Your task to perform on an android device: turn on javascript in the chrome app Image 0: 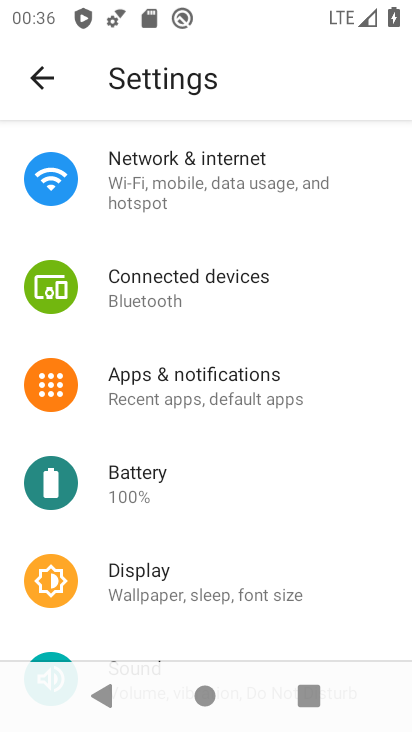
Step 0: press home button
Your task to perform on an android device: turn on javascript in the chrome app Image 1: 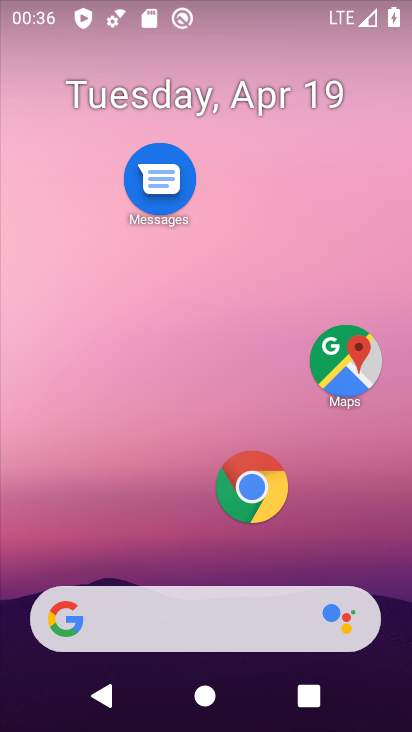
Step 1: click (258, 482)
Your task to perform on an android device: turn on javascript in the chrome app Image 2: 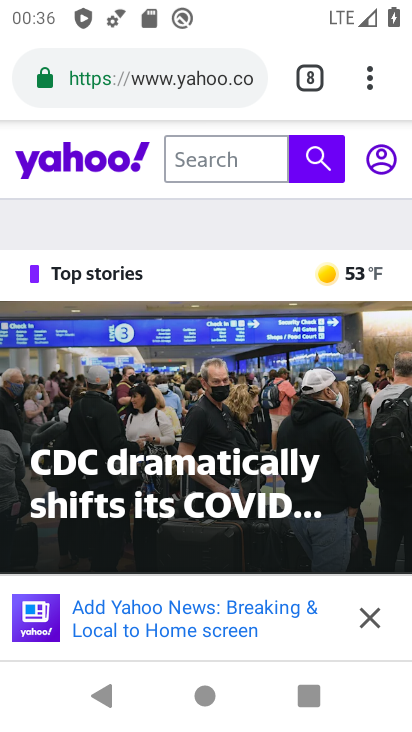
Step 2: click (369, 72)
Your task to perform on an android device: turn on javascript in the chrome app Image 3: 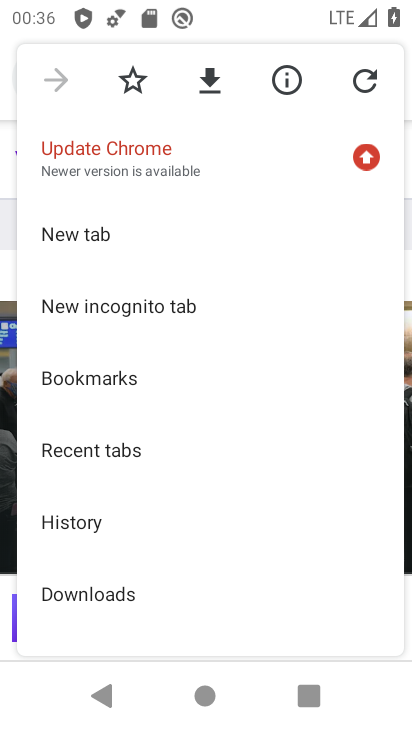
Step 3: drag from (203, 564) to (199, 118)
Your task to perform on an android device: turn on javascript in the chrome app Image 4: 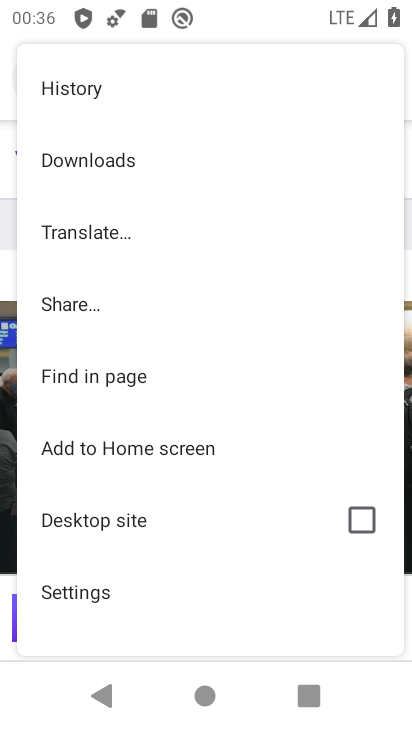
Step 4: click (85, 589)
Your task to perform on an android device: turn on javascript in the chrome app Image 5: 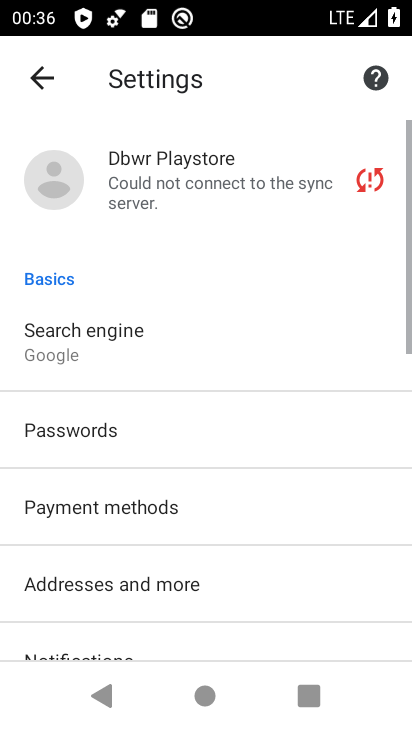
Step 5: drag from (172, 576) to (210, 0)
Your task to perform on an android device: turn on javascript in the chrome app Image 6: 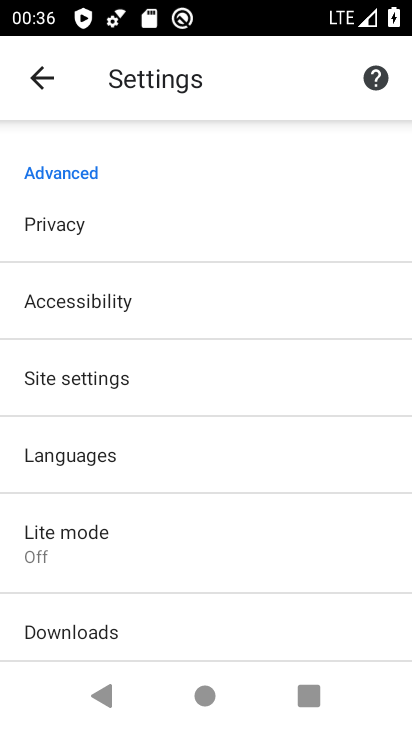
Step 6: click (83, 380)
Your task to perform on an android device: turn on javascript in the chrome app Image 7: 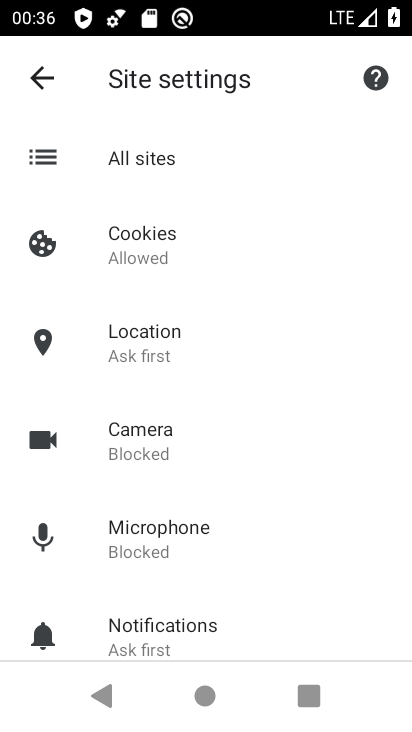
Step 7: drag from (260, 502) to (302, 171)
Your task to perform on an android device: turn on javascript in the chrome app Image 8: 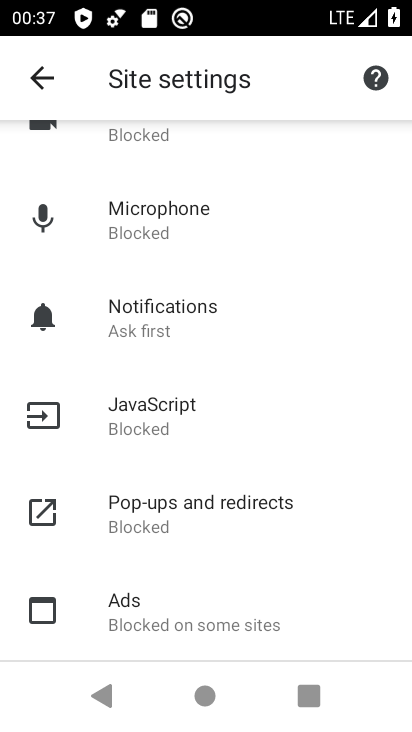
Step 8: click (165, 398)
Your task to perform on an android device: turn on javascript in the chrome app Image 9: 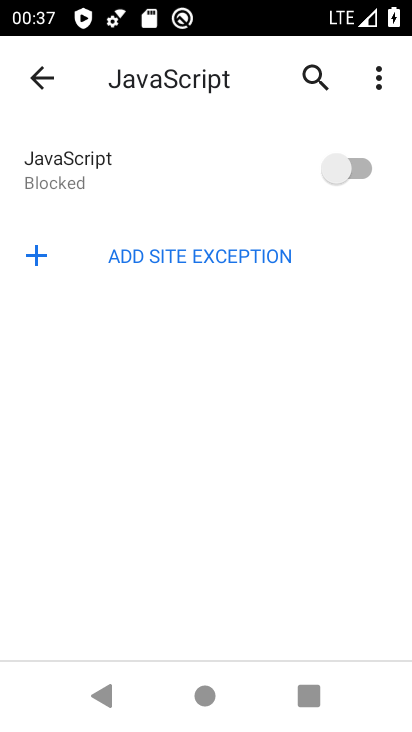
Step 9: click (347, 172)
Your task to perform on an android device: turn on javascript in the chrome app Image 10: 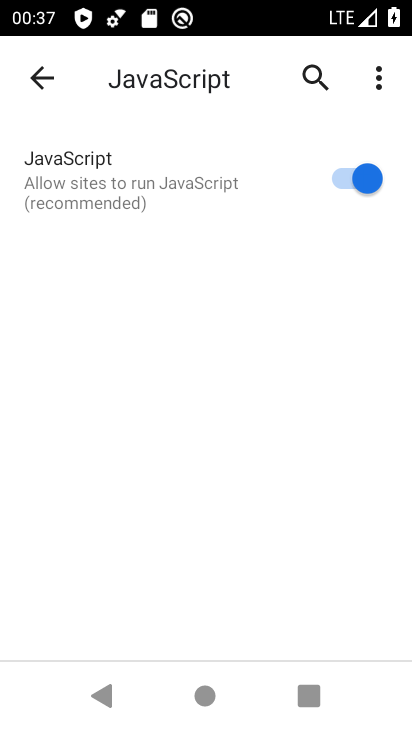
Step 10: task complete